Your task to perform on an android device: Go to Maps Image 0: 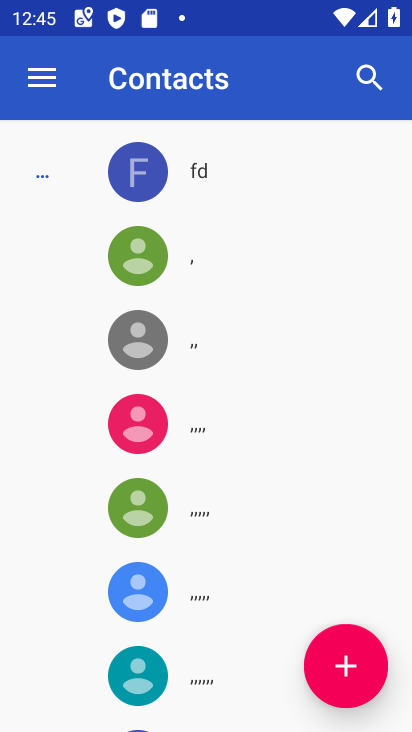
Step 0: press home button
Your task to perform on an android device: Go to Maps Image 1: 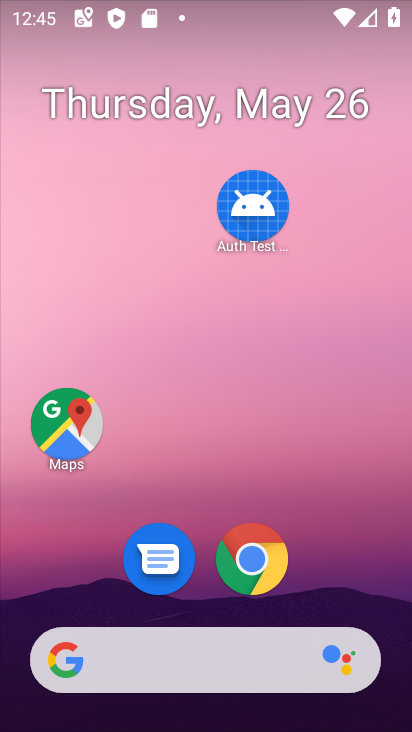
Step 1: click (71, 421)
Your task to perform on an android device: Go to Maps Image 2: 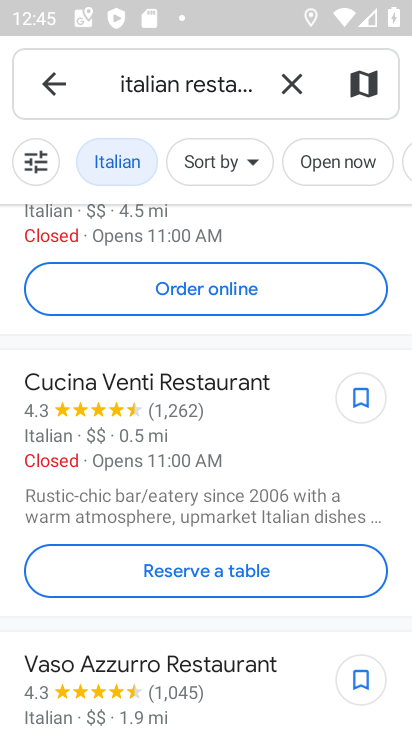
Step 2: task complete